Your task to perform on an android device: turn off smart reply in the gmail app Image 0: 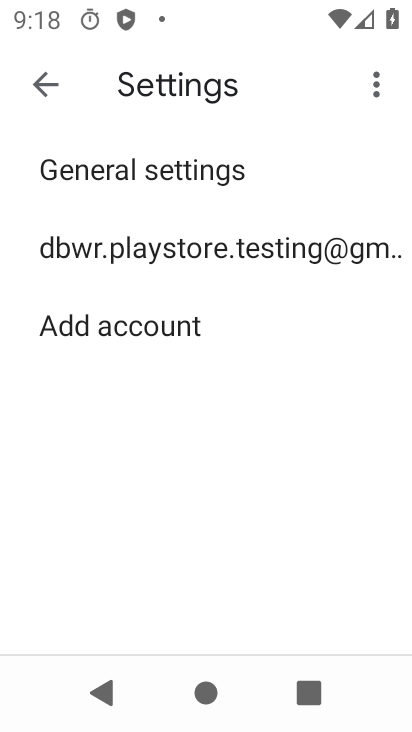
Step 0: press home button
Your task to perform on an android device: turn off smart reply in the gmail app Image 1: 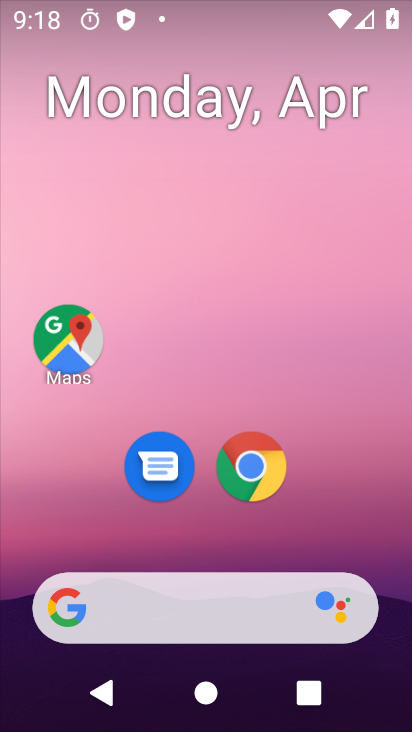
Step 1: drag from (229, 559) to (143, 1)
Your task to perform on an android device: turn off smart reply in the gmail app Image 2: 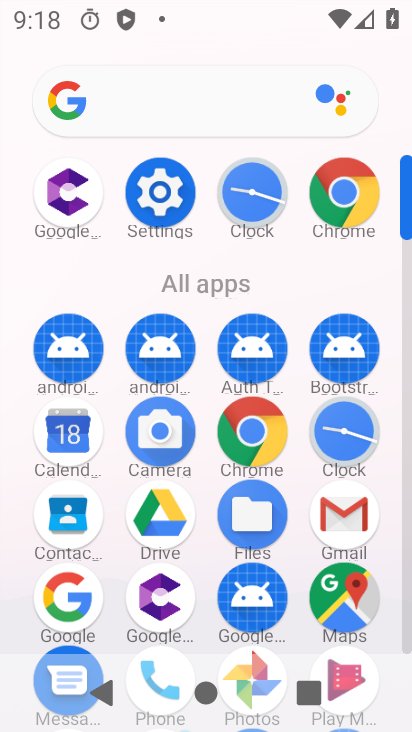
Step 2: click (343, 503)
Your task to perform on an android device: turn off smart reply in the gmail app Image 3: 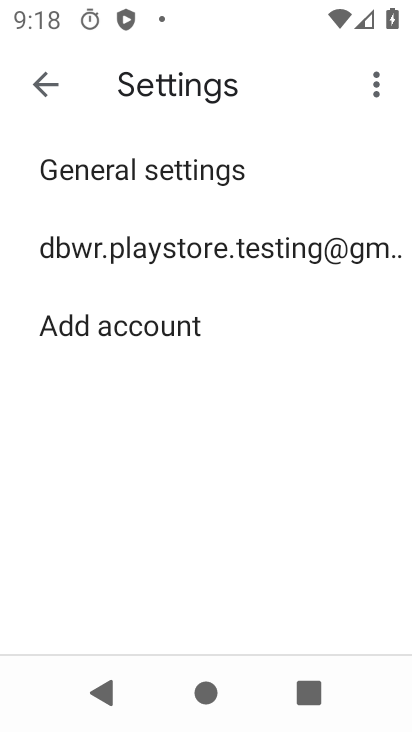
Step 3: click (165, 261)
Your task to perform on an android device: turn off smart reply in the gmail app Image 4: 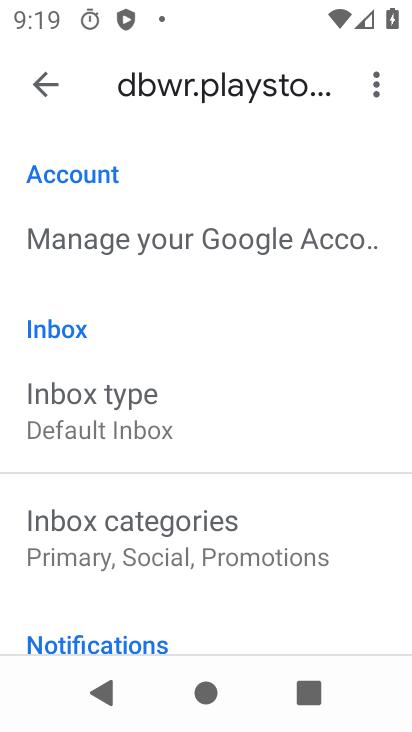
Step 4: drag from (193, 489) to (170, 76)
Your task to perform on an android device: turn off smart reply in the gmail app Image 5: 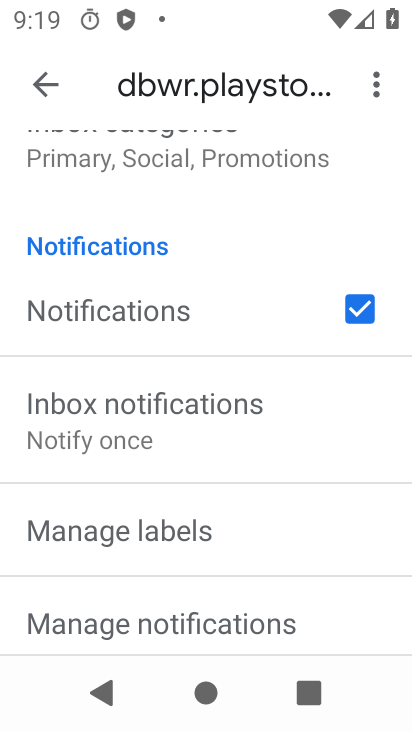
Step 5: drag from (230, 524) to (228, 298)
Your task to perform on an android device: turn off smart reply in the gmail app Image 6: 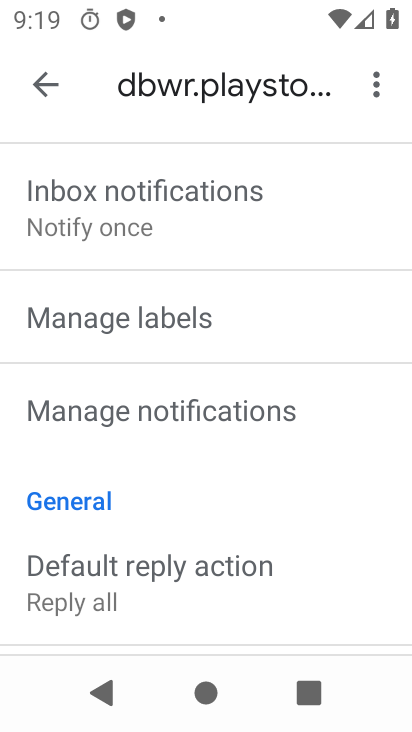
Step 6: drag from (201, 288) to (202, 582)
Your task to perform on an android device: turn off smart reply in the gmail app Image 7: 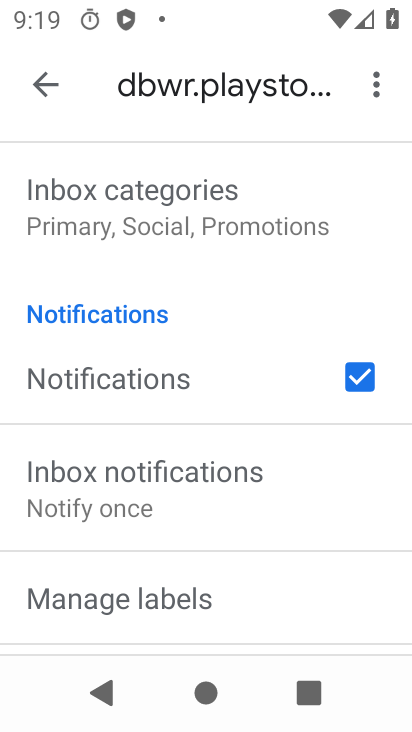
Step 7: drag from (191, 256) to (179, 643)
Your task to perform on an android device: turn off smart reply in the gmail app Image 8: 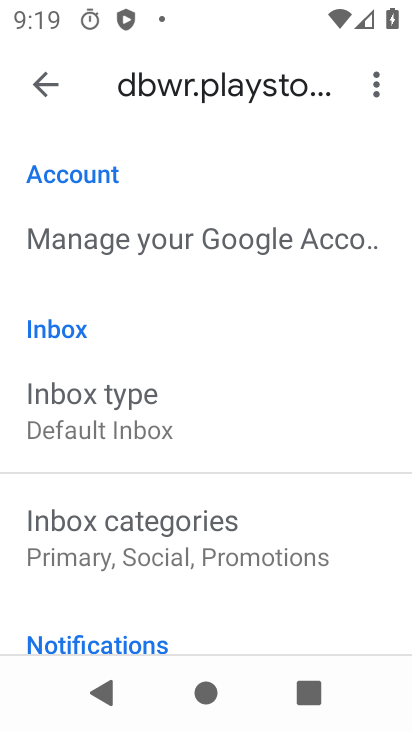
Step 8: click (135, 417)
Your task to perform on an android device: turn off smart reply in the gmail app Image 9: 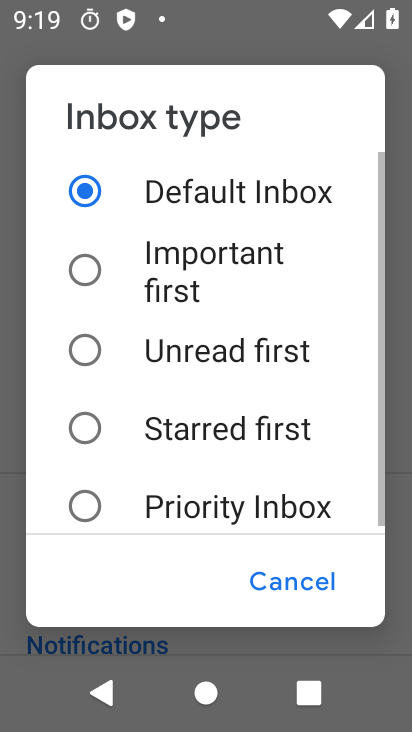
Step 9: click (272, 580)
Your task to perform on an android device: turn off smart reply in the gmail app Image 10: 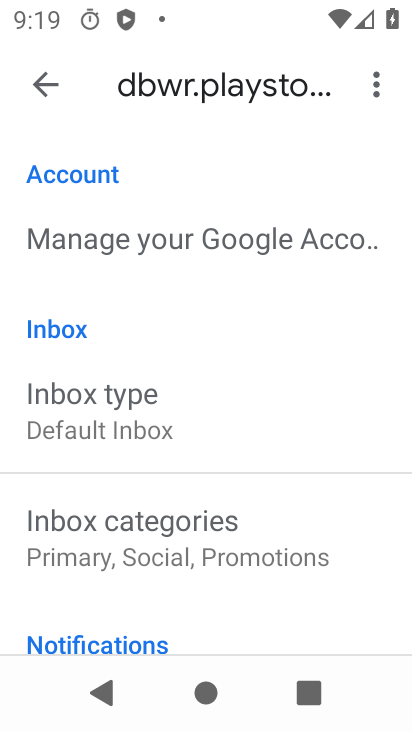
Step 10: drag from (274, 596) to (209, 108)
Your task to perform on an android device: turn off smart reply in the gmail app Image 11: 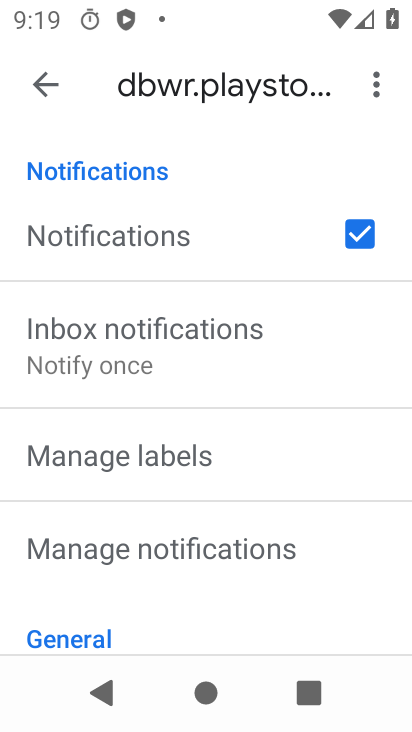
Step 11: drag from (199, 530) to (172, 52)
Your task to perform on an android device: turn off smart reply in the gmail app Image 12: 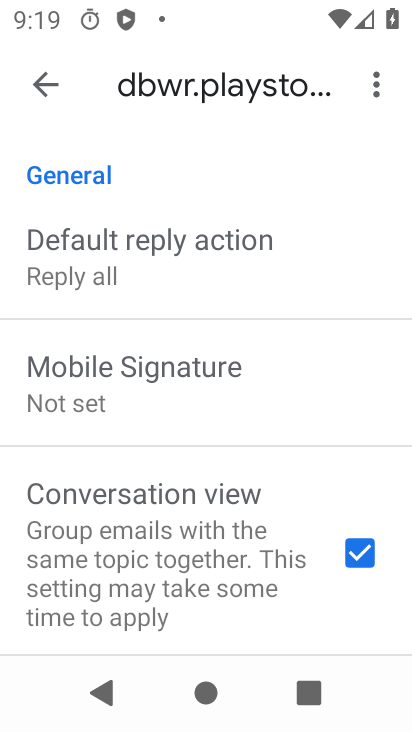
Step 12: drag from (200, 540) to (159, 74)
Your task to perform on an android device: turn off smart reply in the gmail app Image 13: 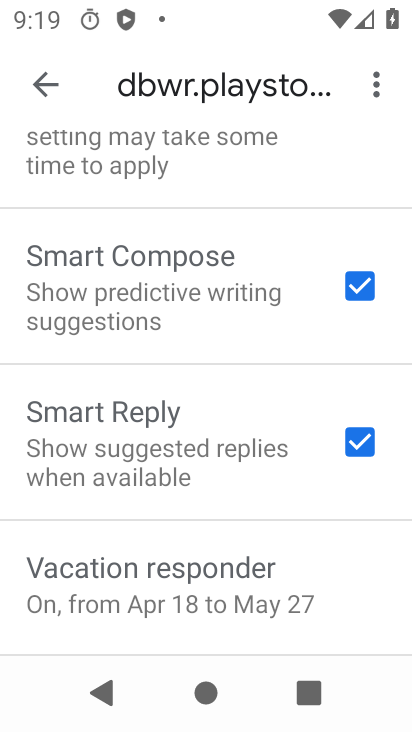
Step 13: click (354, 433)
Your task to perform on an android device: turn off smart reply in the gmail app Image 14: 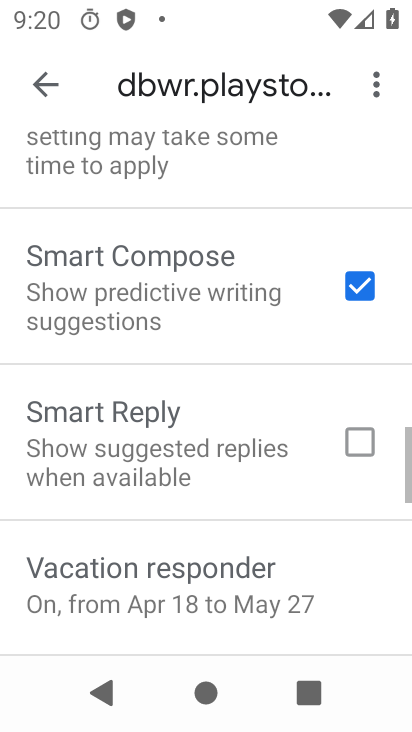
Step 14: task complete